Your task to perform on an android device: Turn on the flashlight Image 0: 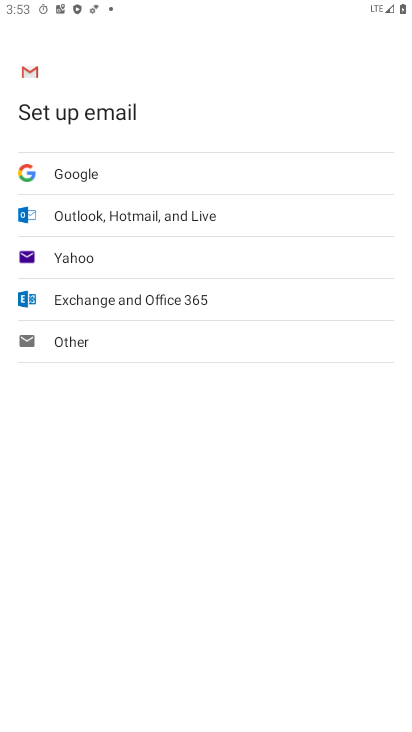
Step 0: press home button
Your task to perform on an android device: Turn on the flashlight Image 1: 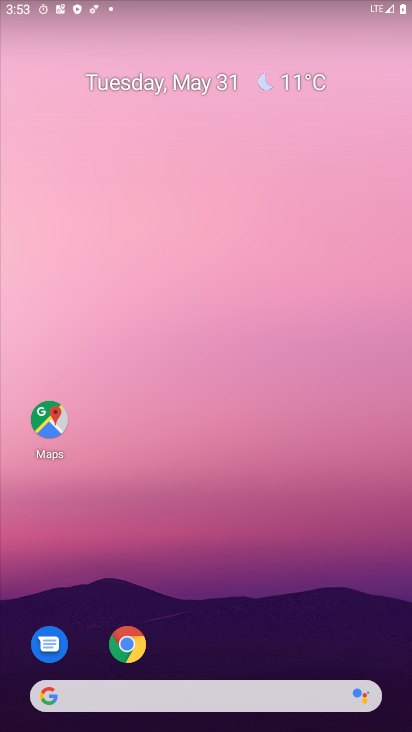
Step 1: drag from (244, 627) to (239, 203)
Your task to perform on an android device: Turn on the flashlight Image 2: 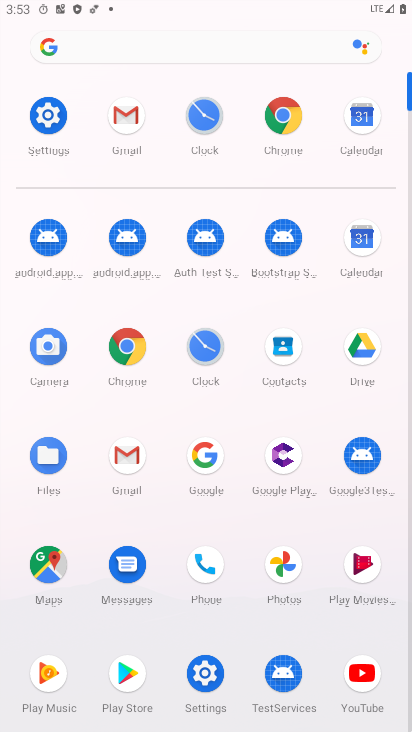
Step 2: click (53, 125)
Your task to perform on an android device: Turn on the flashlight Image 3: 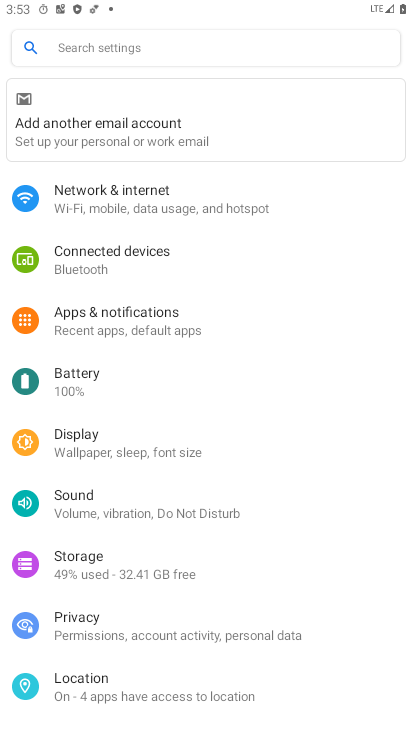
Step 3: click (167, 328)
Your task to perform on an android device: Turn on the flashlight Image 4: 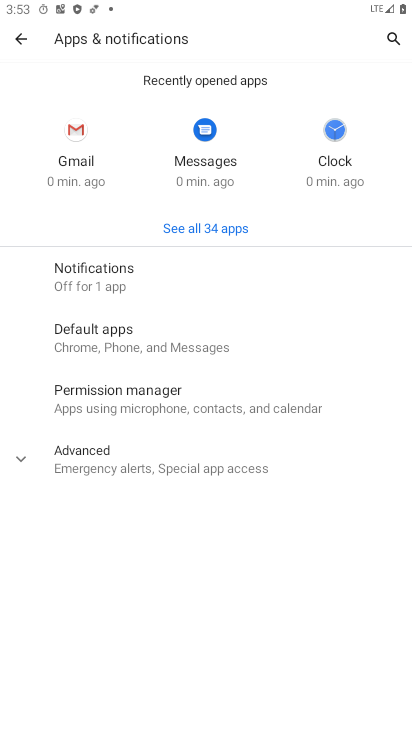
Step 4: click (148, 467)
Your task to perform on an android device: Turn on the flashlight Image 5: 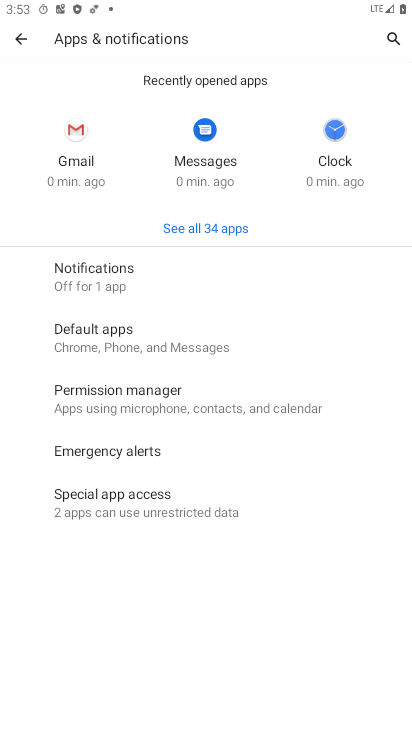
Step 5: click (137, 510)
Your task to perform on an android device: Turn on the flashlight Image 6: 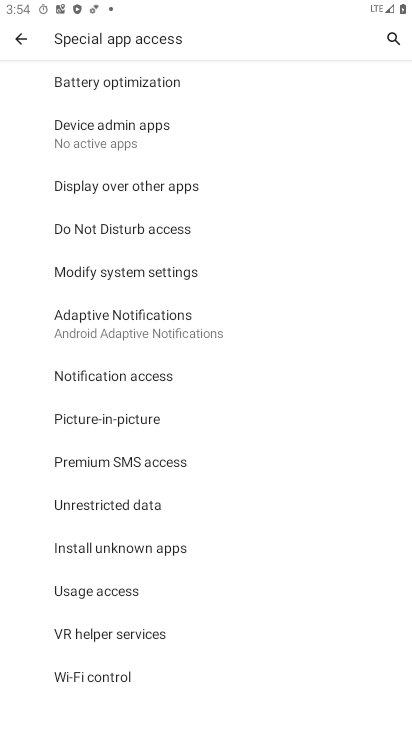
Step 6: task complete